Your task to perform on an android device: Open accessibility settings Image 0: 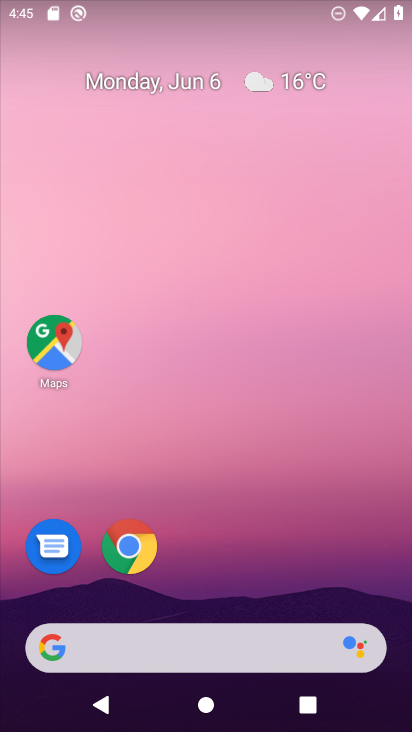
Step 0: drag from (198, 632) to (324, 102)
Your task to perform on an android device: Open accessibility settings Image 1: 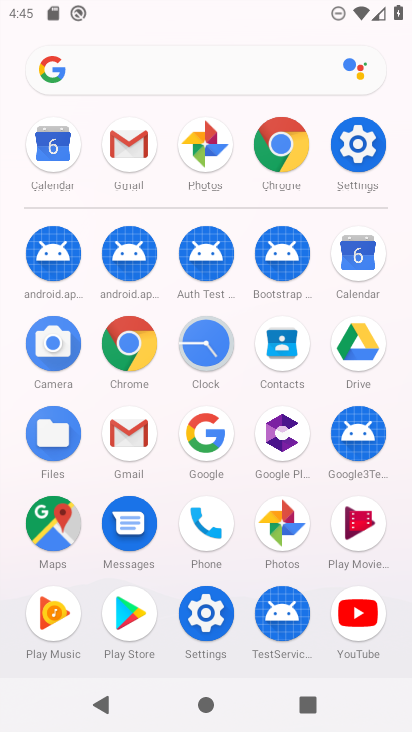
Step 1: click (231, 617)
Your task to perform on an android device: Open accessibility settings Image 2: 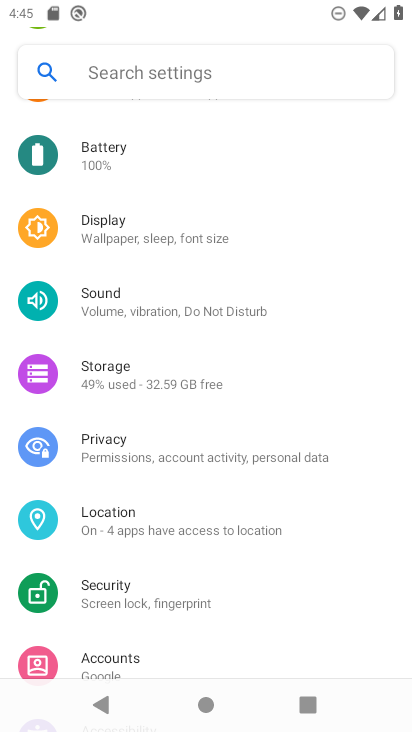
Step 2: drag from (183, 528) to (136, 168)
Your task to perform on an android device: Open accessibility settings Image 3: 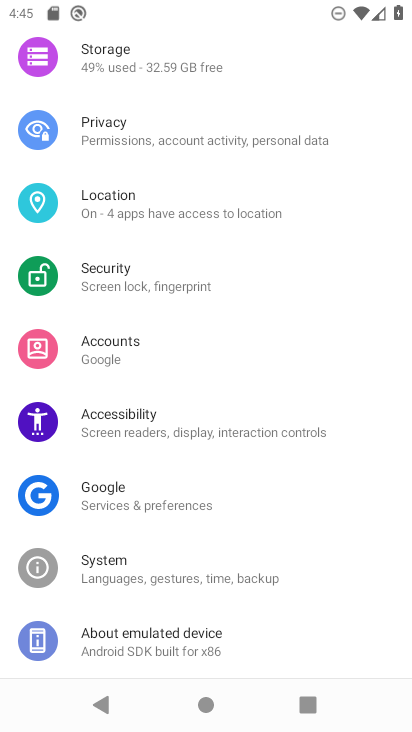
Step 3: click (145, 410)
Your task to perform on an android device: Open accessibility settings Image 4: 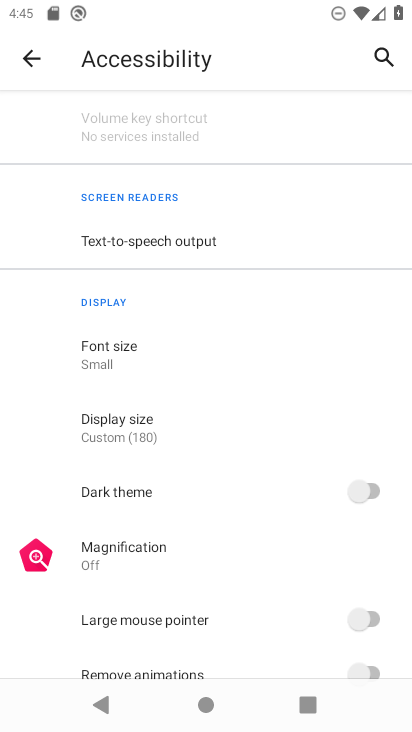
Step 4: task complete